Your task to perform on an android device: What's on my calendar today? Image 0: 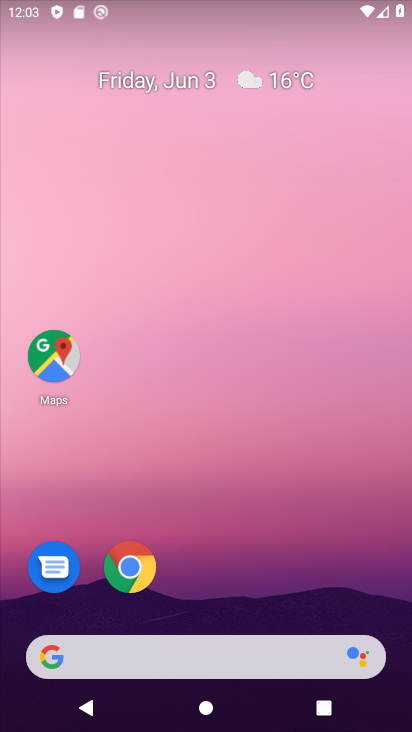
Step 0: drag from (282, 590) to (273, 204)
Your task to perform on an android device: What's on my calendar today? Image 1: 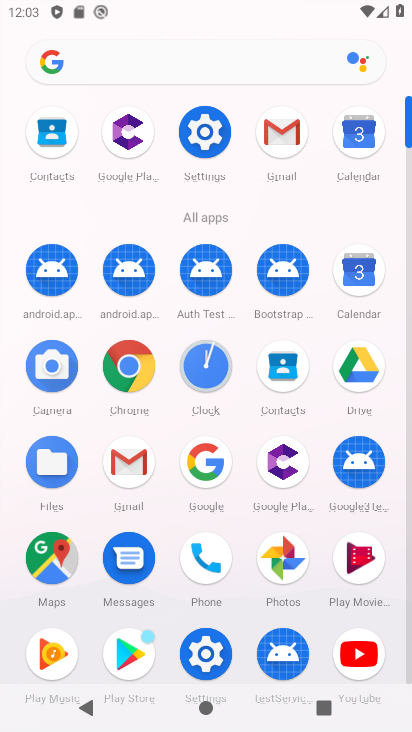
Step 1: click (345, 272)
Your task to perform on an android device: What's on my calendar today? Image 2: 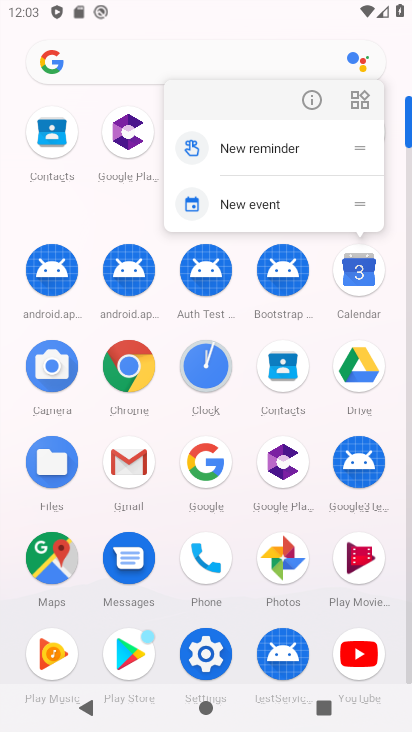
Step 2: click (345, 273)
Your task to perform on an android device: What's on my calendar today? Image 3: 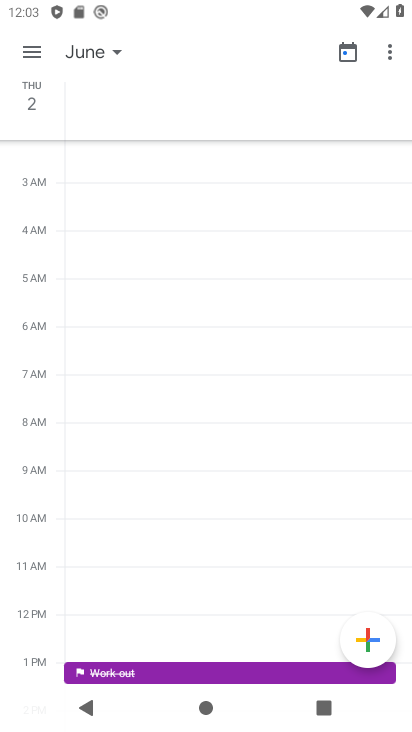
Step 3: task complete